Your task to perform on an android device: open app "Google News" Image 0: 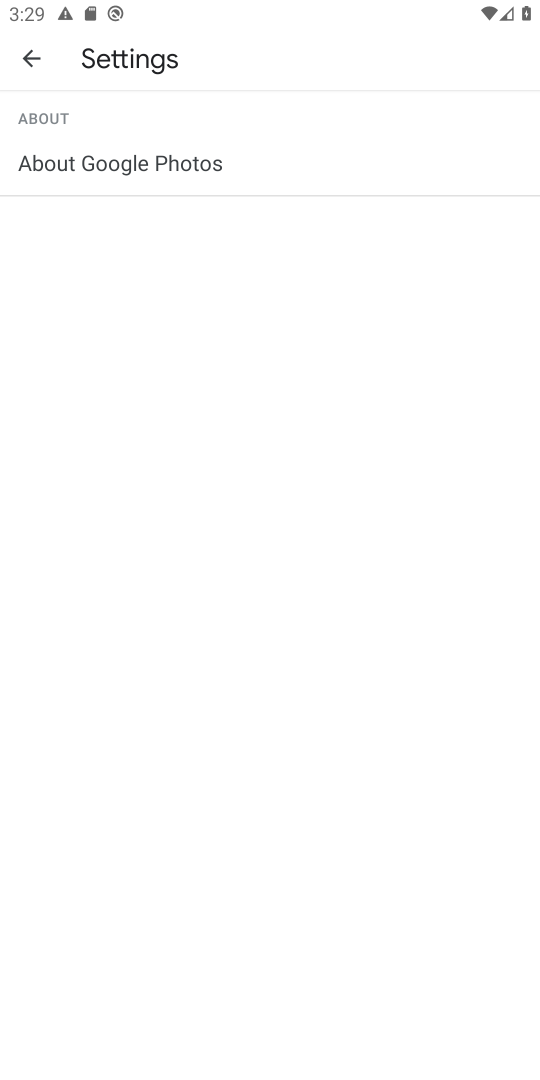
Step 0: press home button
Your task to perform on an android device: open app "Google News" Image 1: 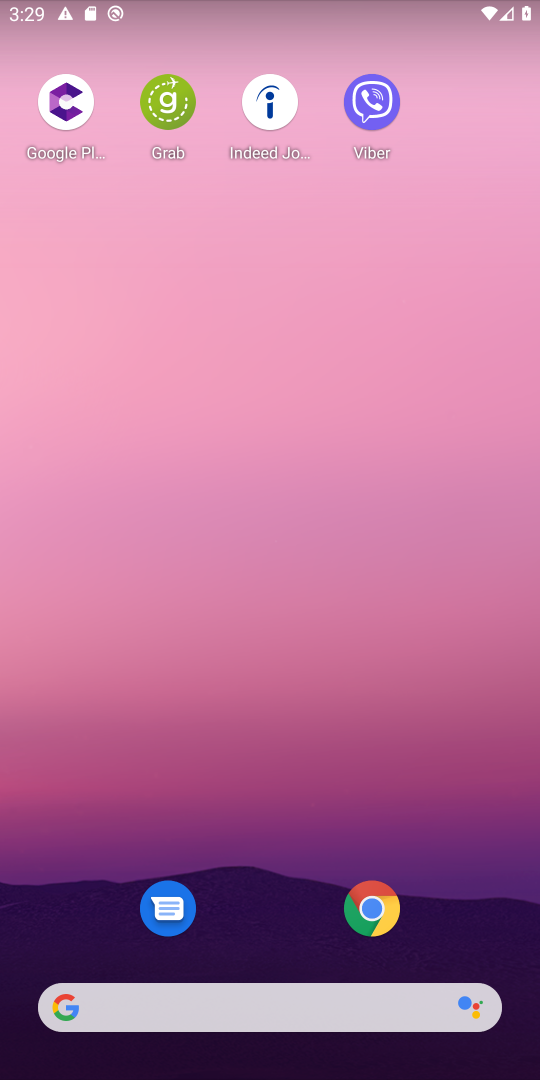
Step 1: drag from (264, 965) to (196, 1)
Your task to perform on an android device: open app "Google News" Image 2: 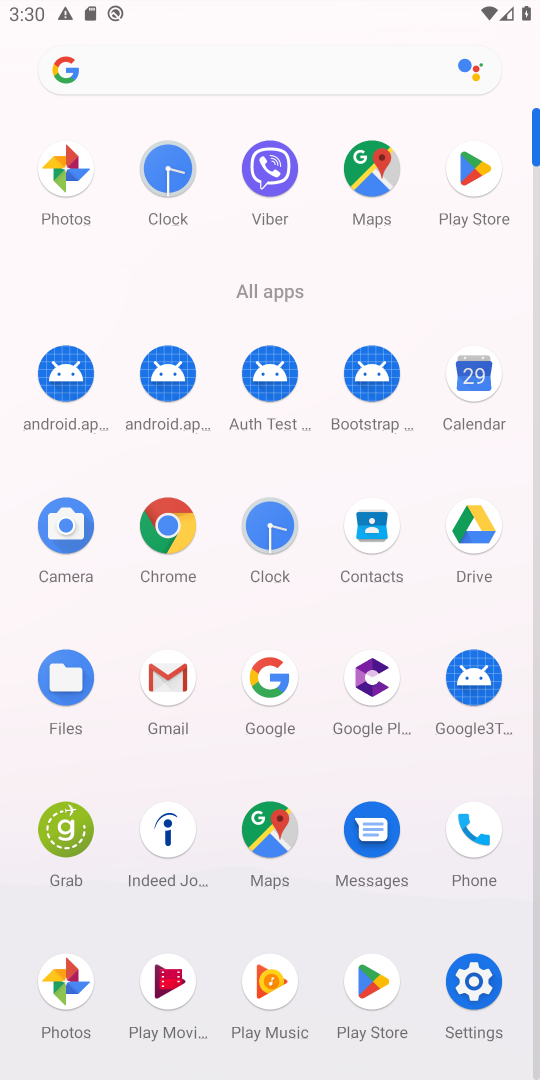
Step 2: click (455, 232)
Your task to perform on an android device: open app "Google News" Image 3: 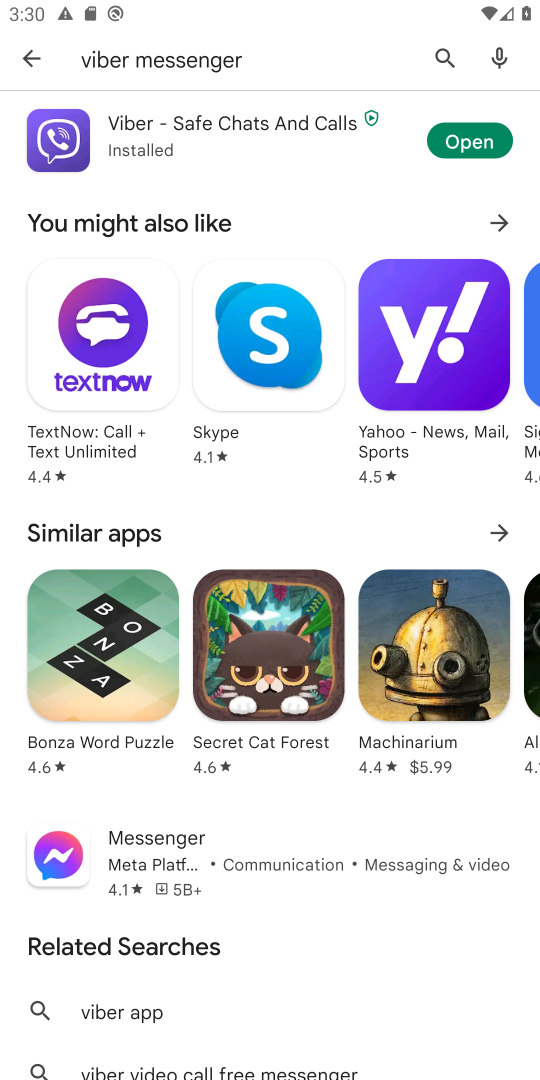
Step 3: click (447, 49)
Your task to perform on an android device: open app "Google News" Image 4: 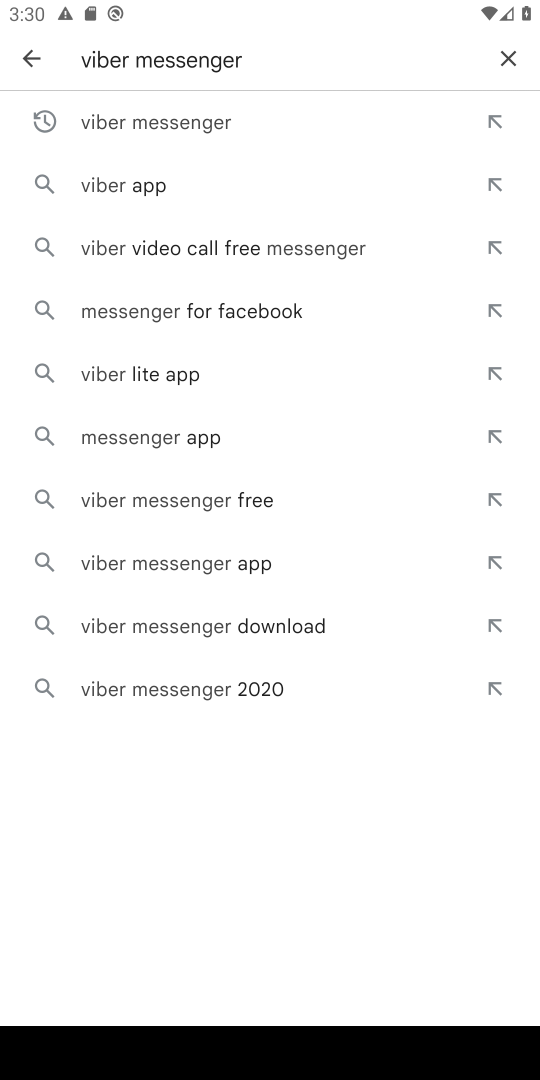
Step 4: click (514, 61)
Your task to perform on an android device: open app "Google News" Image 5: 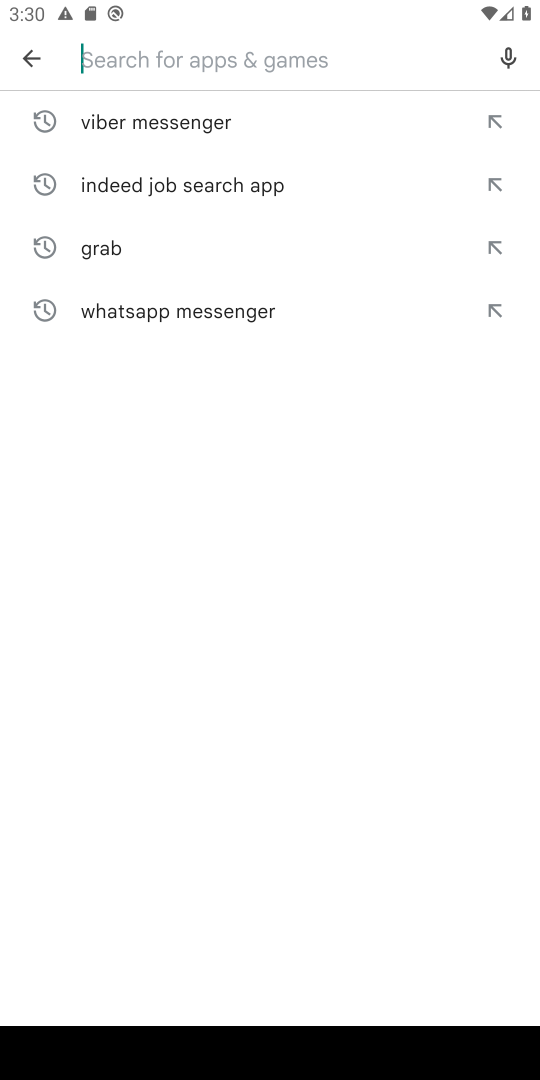
Step 5: type "Google News"
Your task to perform on an android device: open app "Google News" Image 6: 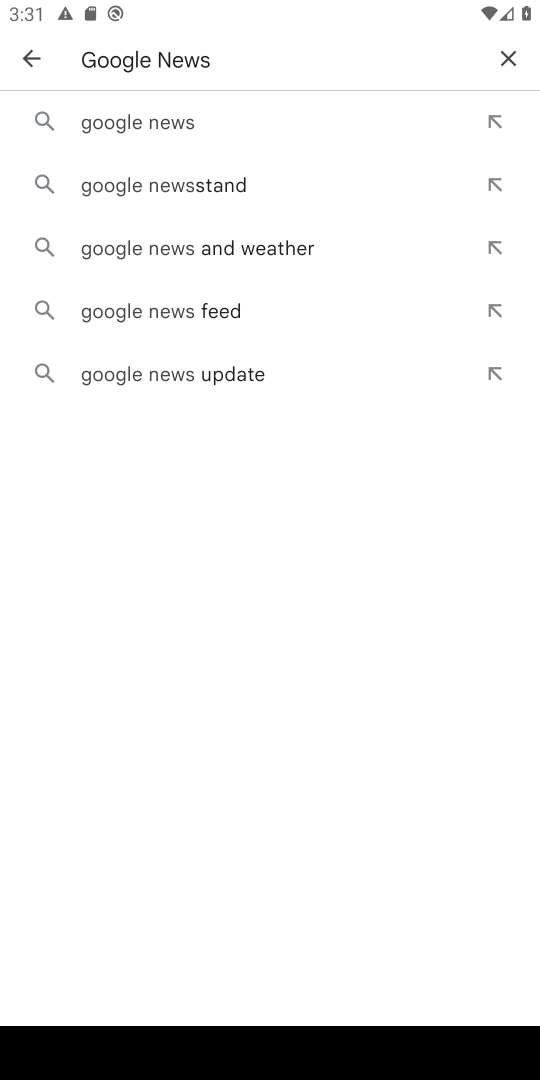
Step 6: click (205, 105)
Your task to perform on an android device: open app "Google News" Image 7: 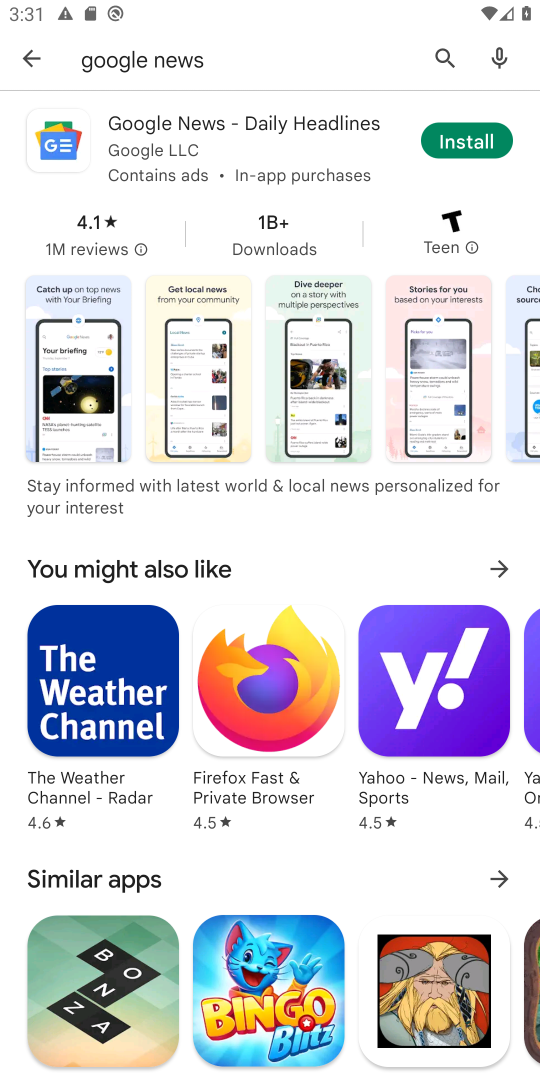
Step 7: task complete